Your task to perform on an android device: see tabs open on other devices in the chrome app Image 0: 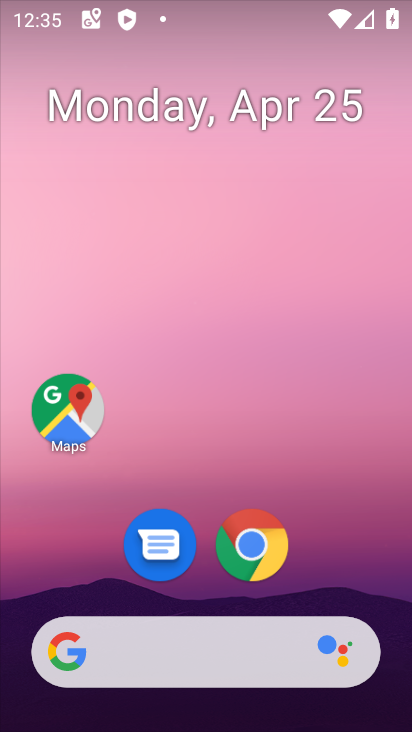
Step 0: click (259, 551)
Your task to perform on an android device: see tabs open on other devices in the chrome app Image 1: 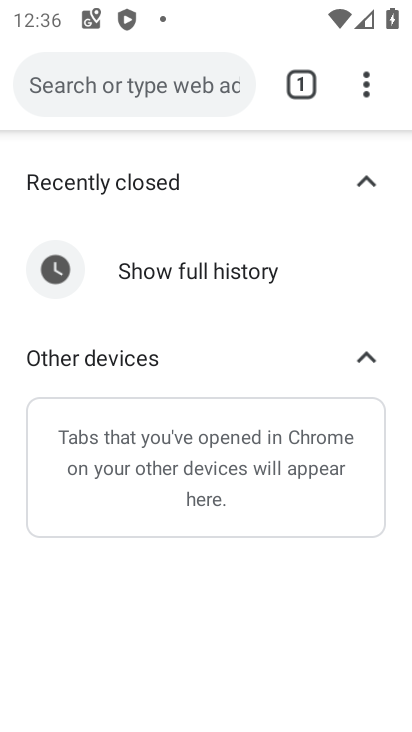
Step 1: task complete